Your task to perform on an android device: Is it going to rain tomorrow? Image 0: 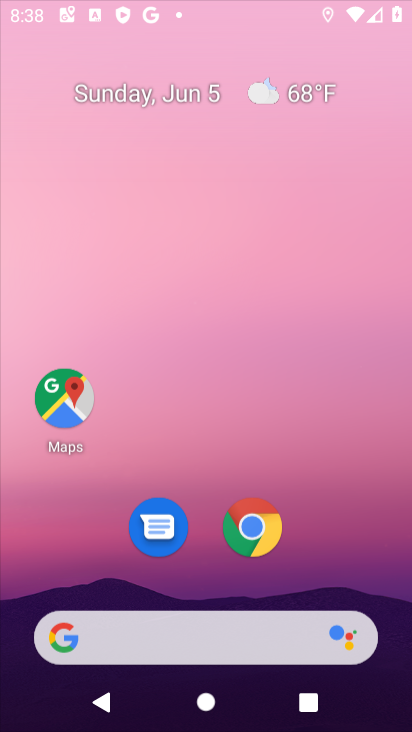
Step 0: click (215, 486)
Your task to perform on an android device: Is it going to rain tomorrow? Image 1: 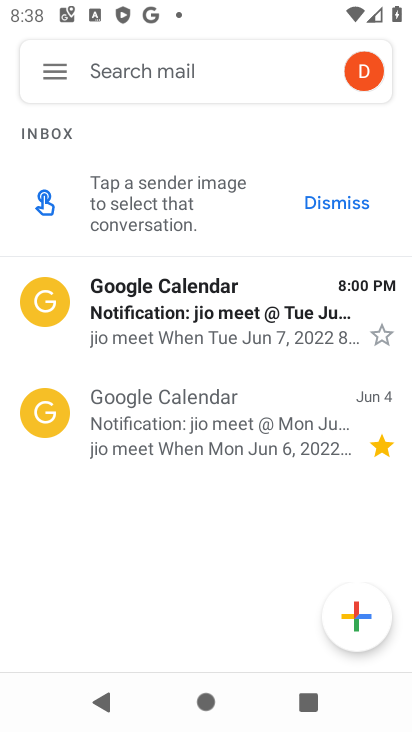
Step 1: drag from (250, 8) to (241, 440)
Your task to perform on an android device: Is it going to rain tomorrow? Image 2: 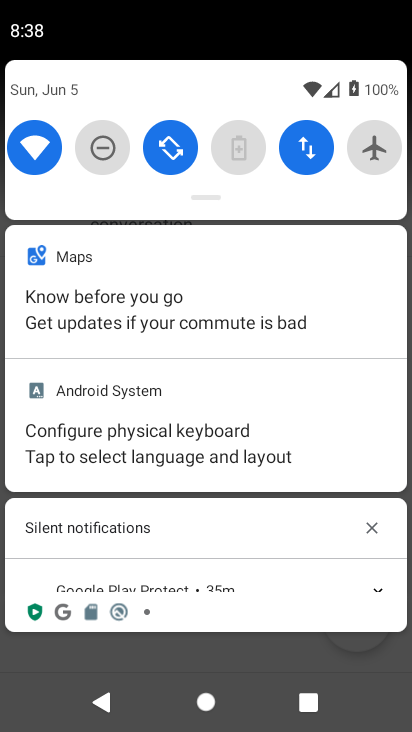
Step 2: click (302, 155)
Your task to perform on an android device: Is it going to rain tomorrow? Image 3: 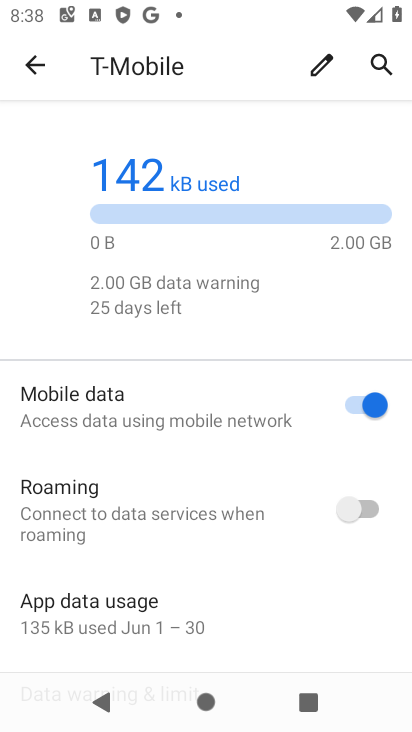
Step 3: task complete